Your task to perform on an android device: empty trash in google photos Image 0: 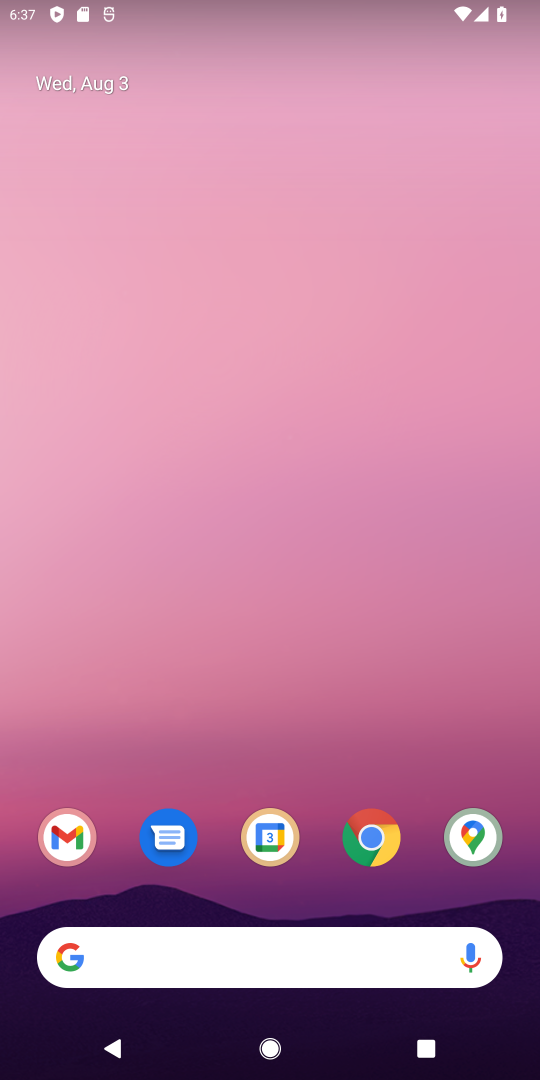
Step 0: press home button
Your task to perform on an android device: empty trash in google photos Image 1: 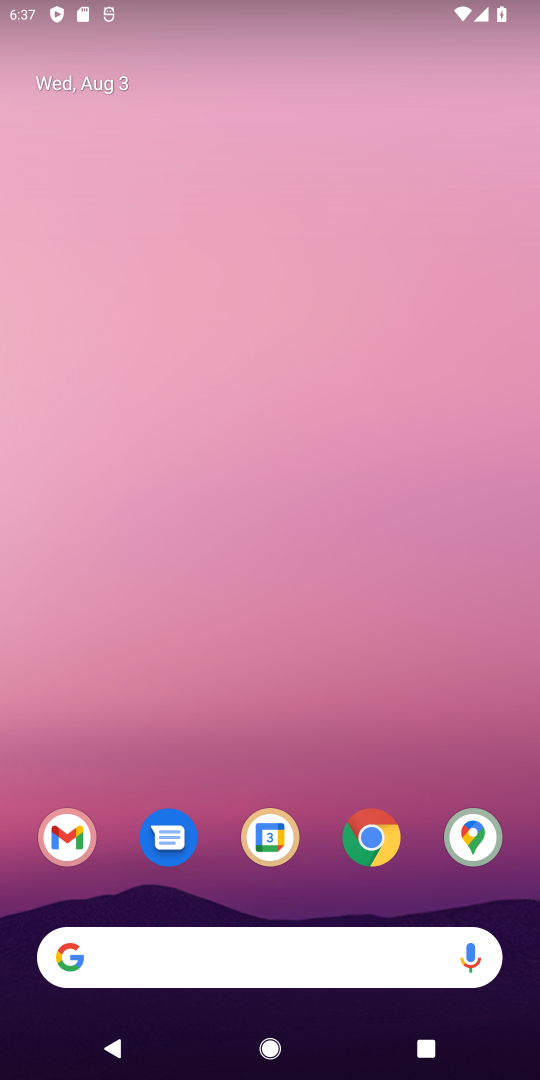
Step 1: drag from (249, 688) to (178, 32)
Your task to perform on an android device: empty trash in google photos Image 2: 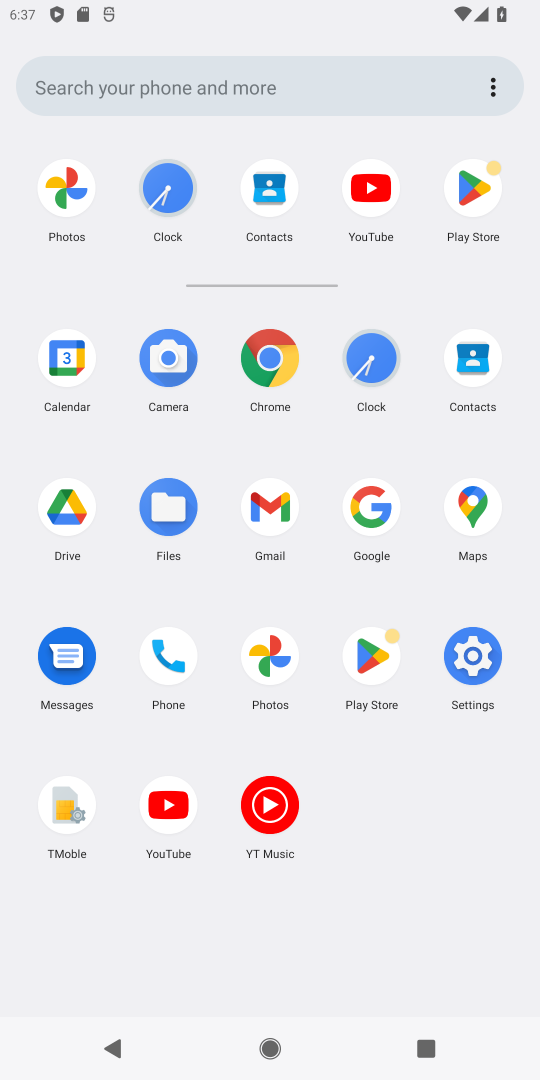
Step 2: click (274, 654)
Your task to perform on an android device: empty trash in google photos Image 3: 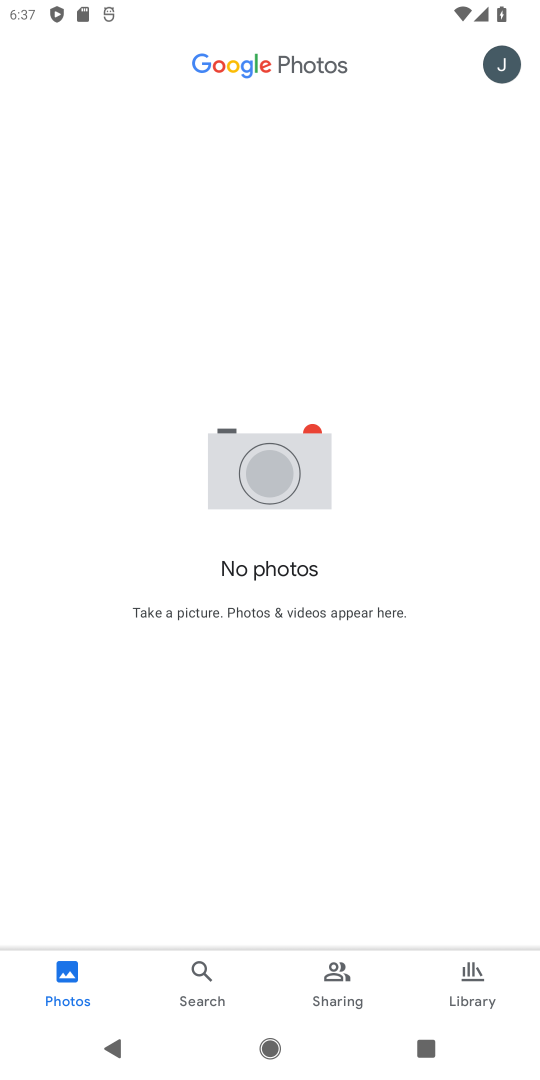
Step 3: click (196, 984)
Your task to perform on an android device: empty trash in google photos Image 4: 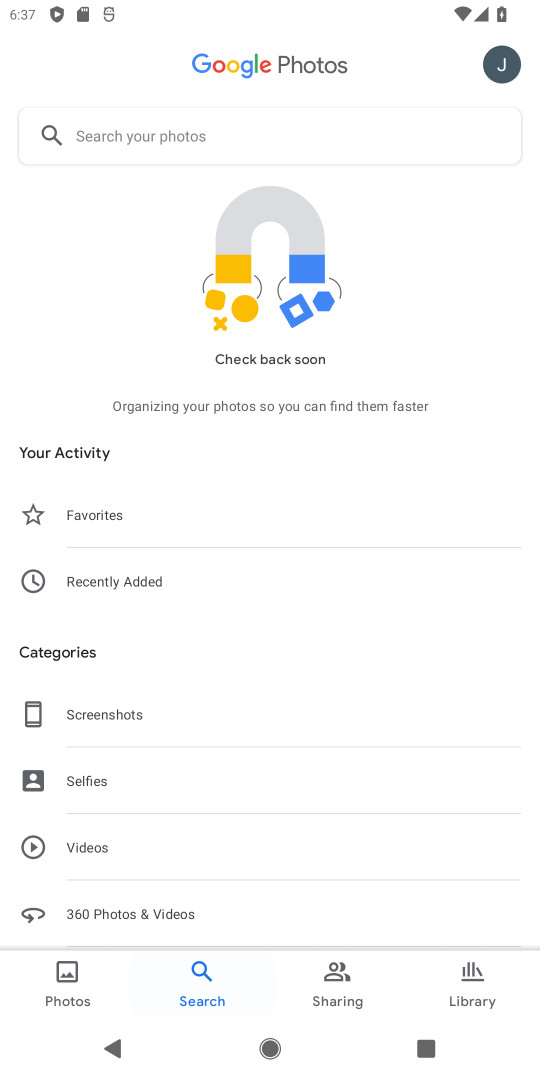
Step 4: click (465, 993)
Your task to perform on an android device: empty trash in google photos Image 5: 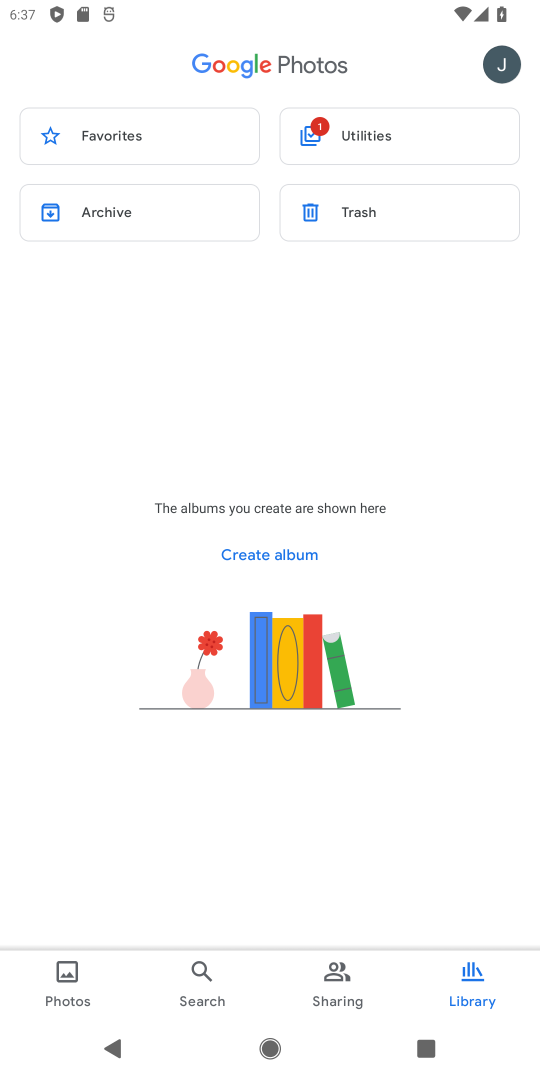
Step 5: click (352, 219)
Your task to perform on an android device: empty trash in google photos Image 6: 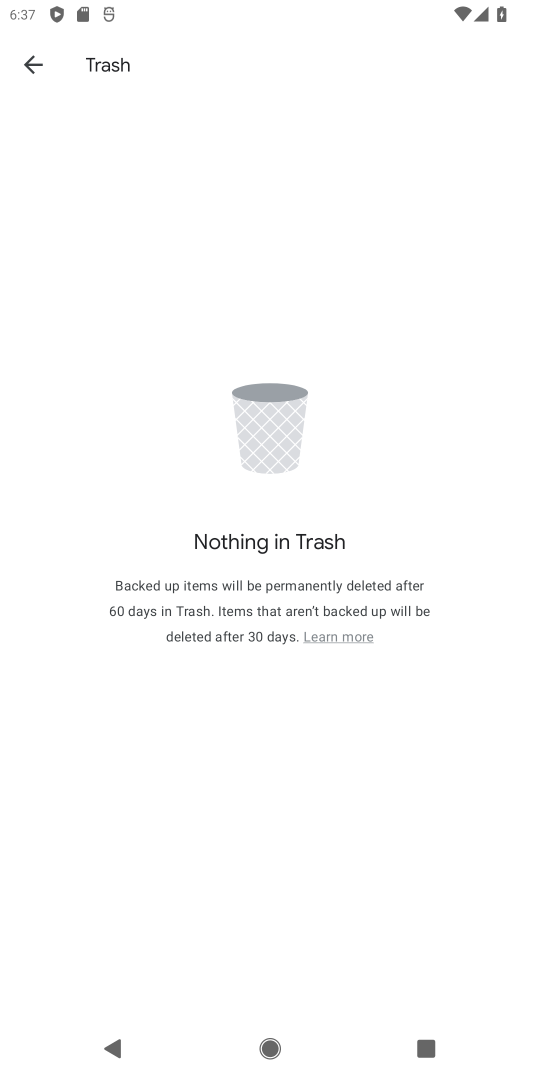
Step 6: task complete